Your task to perform on an android device: turn off location Image 0: 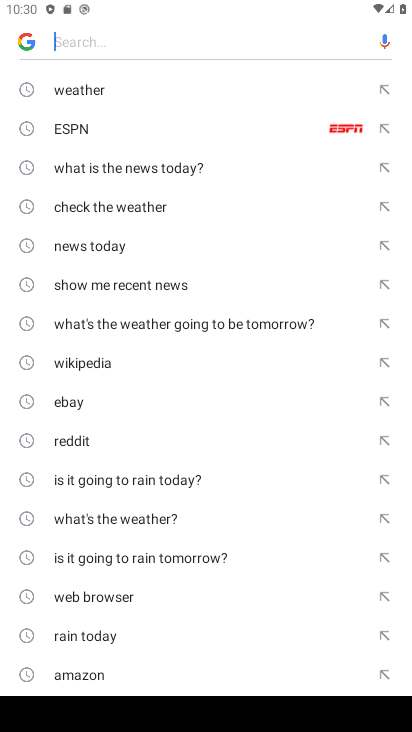
Step 0: press home button
Your task to perform on an android device: turn off location Image 1: 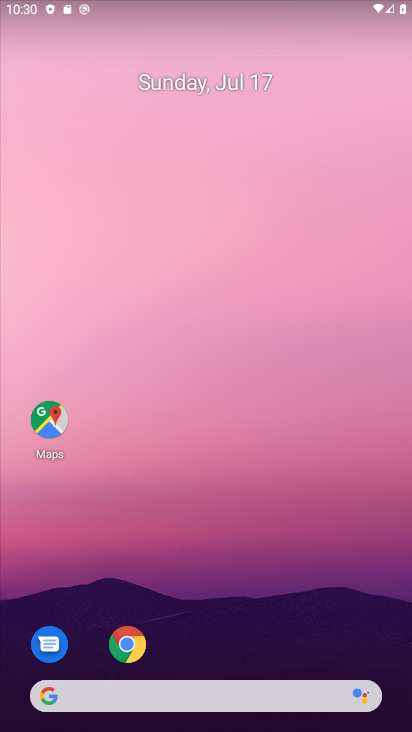
Step 1: drag from (135, 637) to (261, 45)
Your task to perform on an android device: turn off location Image 2: 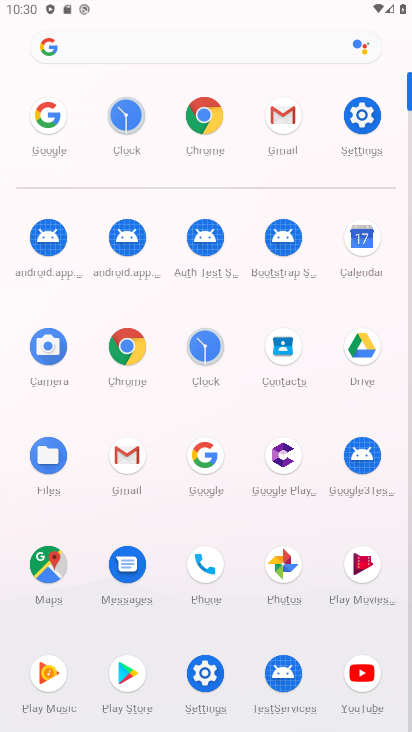
Step 2: click (349, 116)
Your task to perform on an android device: turn off location Image 3: 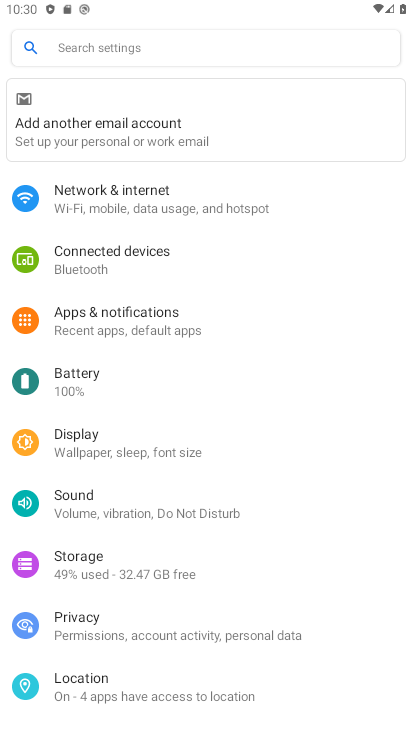
Step 3: drag from (128, 626) to (225, 140)
Your task to perform on an android device: turn off location Image 4: 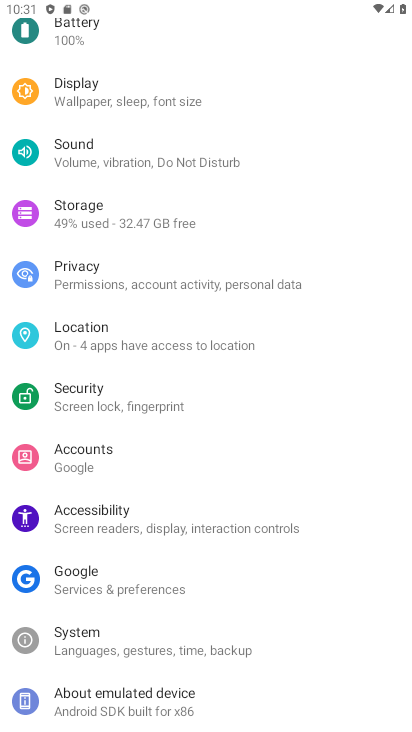
Step 4: click (72, 343)
Your task to perform on an android device: turn off location Image 5: 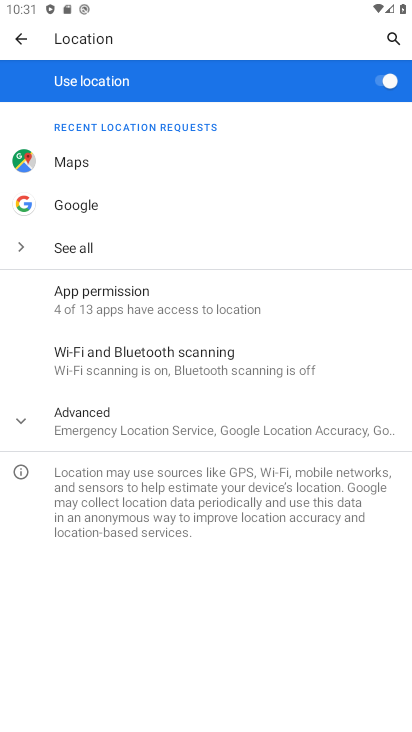
Step 5: click (388, 78)
Your task to perform on an android device: turn off location Image 6: 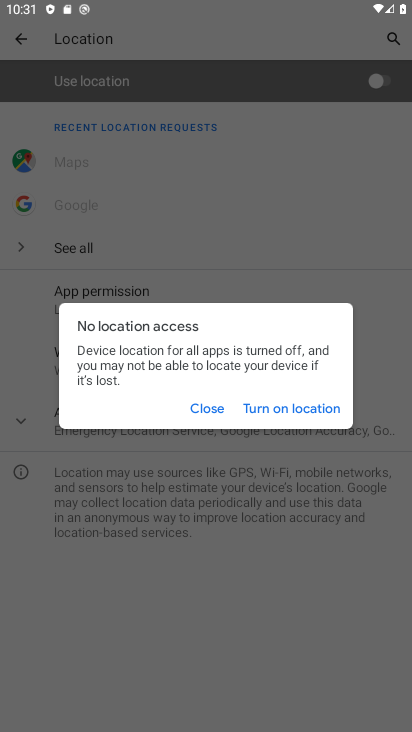
Step 6: click (205, 415)
Your task to perform on an android device: turn off location Image 7: 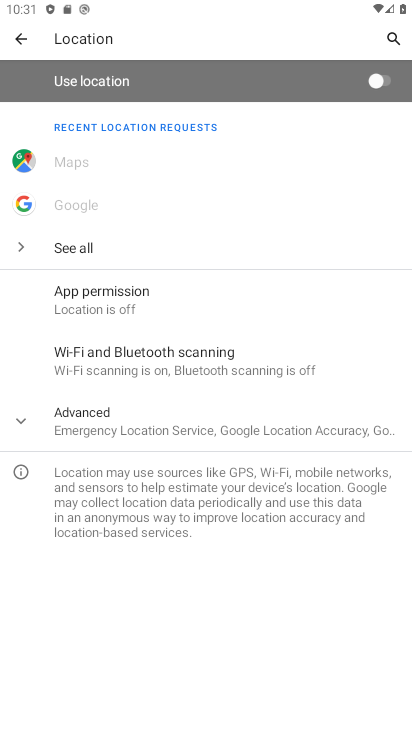
Step 7: task complete